Your task to perform on an android device: Open the phone app and click the voicemail tab. Image 0: 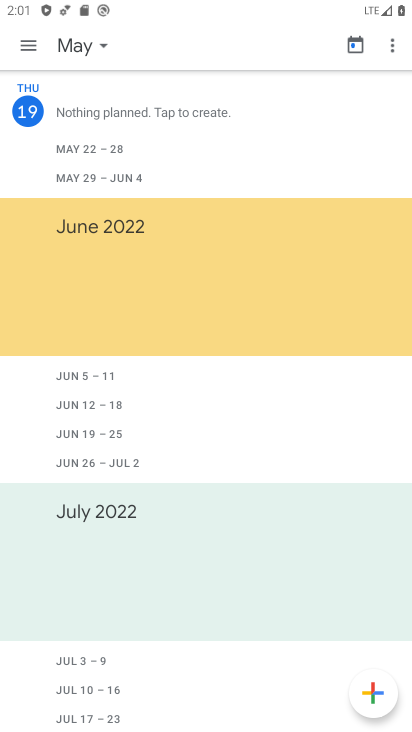
Step 0: press back button
Your task to perform on an android device: Open the phone app and click the voicemail tab. Image 1: 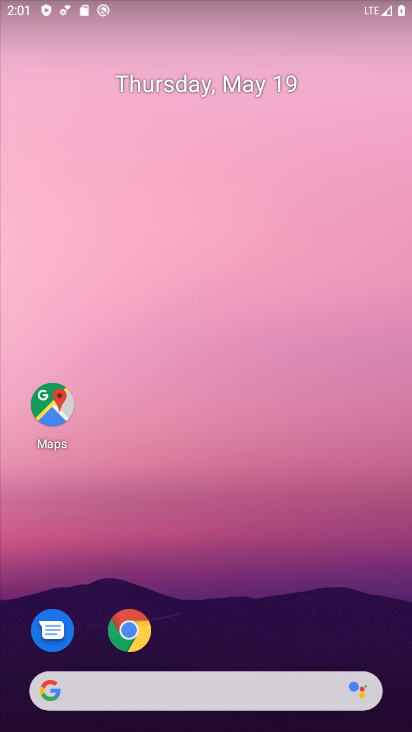
Step 1: drag from (244, 550) to (239, 23)
Your task to perform on an android device: Open the phone app and click the voicemail tab. Image 2: 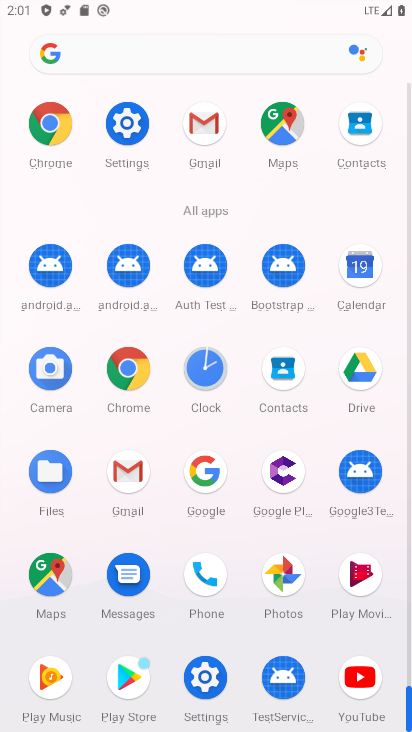
Step 2: drag from (5, 539) to (18, 202)
Your task to perform on an android device: Open the phone app and click the voicemail tab. Image 3: 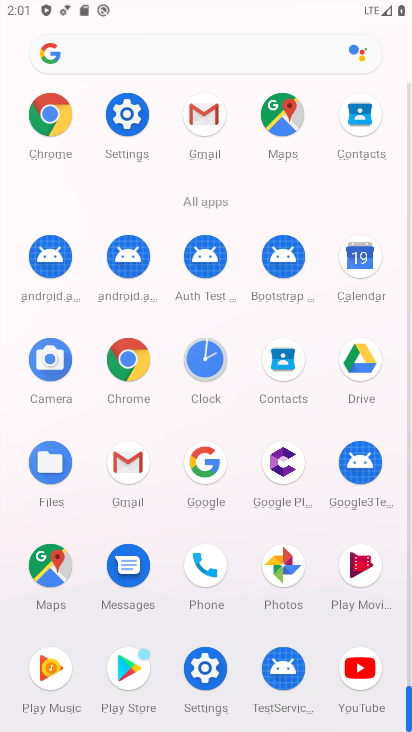
Step 3: drag from (27, 598) to (34, 350)
Your task to perform on an android device: Open the phone app and click the voicemail tab. Image 4: 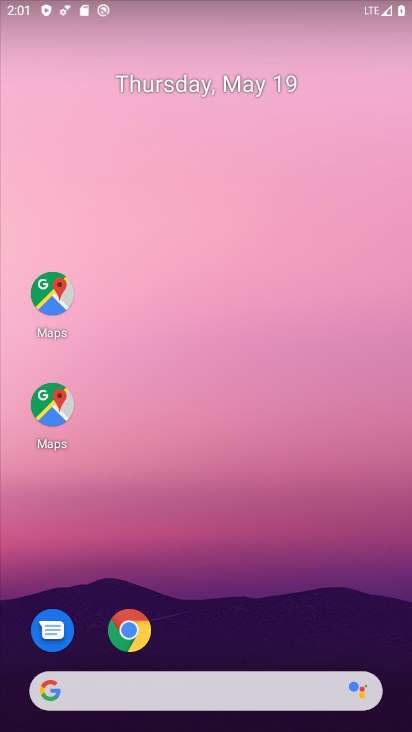
Step 4: press back button
Your task to perform on an android device: Open the phone app and click the voicemail tab. Image 5: 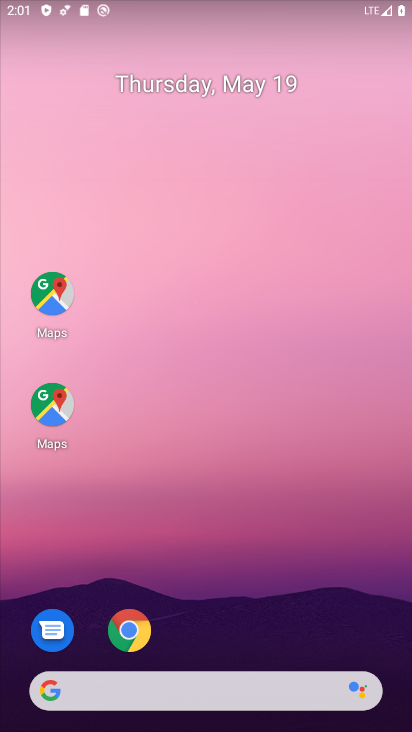
Step 5: drag from (233, 605) to (224, 77)
Your task to perform on an android device: Open the phone app and click the voicemail tab. Image 6: 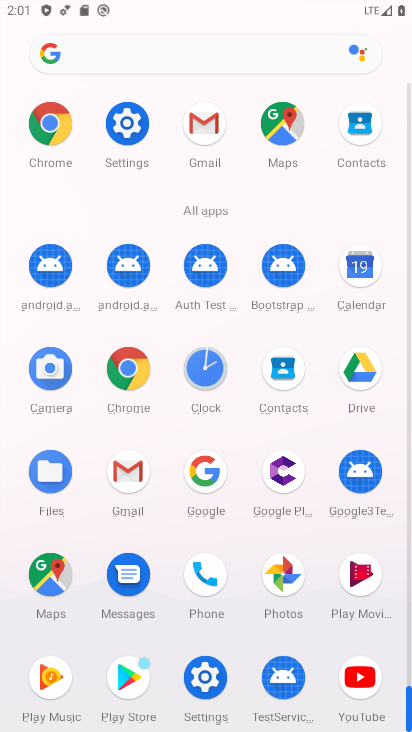
Step 6: click (201, 569)
Your task to perform on an android device: Open the phone app and click the voicemail tab. Image 7: 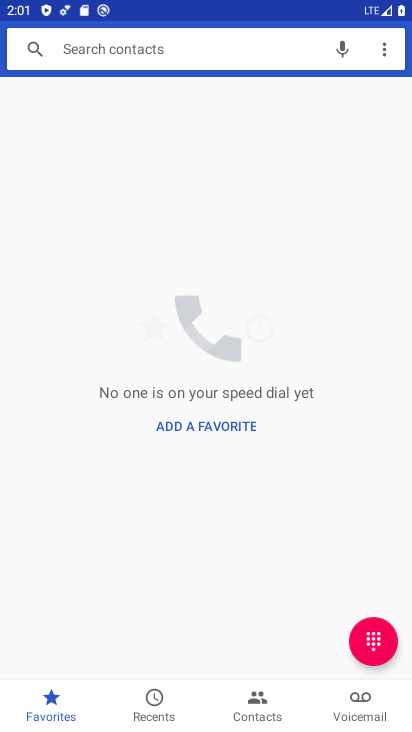
Step 7: click (343, 705)
Your task to perform on an android device: Open the phone app and click the voicemail tab. Image 8: 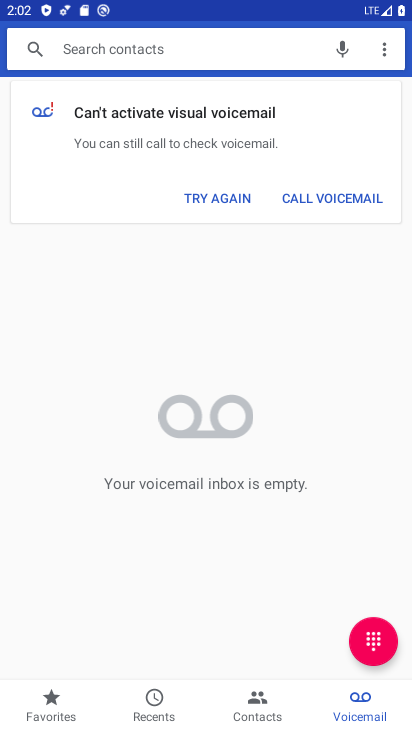
Step 8: task complete